Your task to perform on an android device: see tabs open on other devices in the chrome app Image 0: 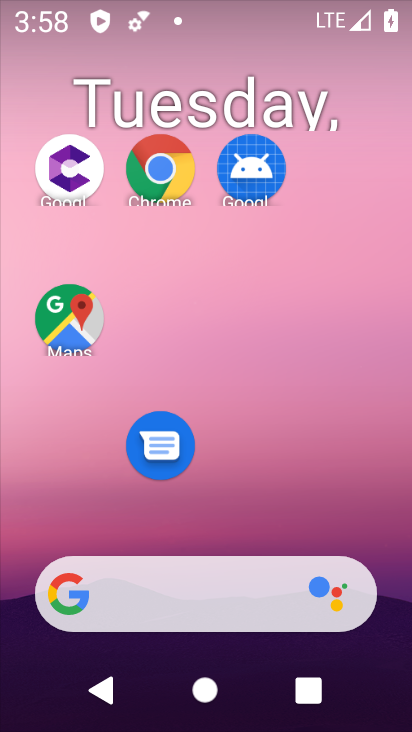
Step 0: click (160, 162)
Your task to perform on an android device: see tabs open on other devices in the chrome app Image 1: 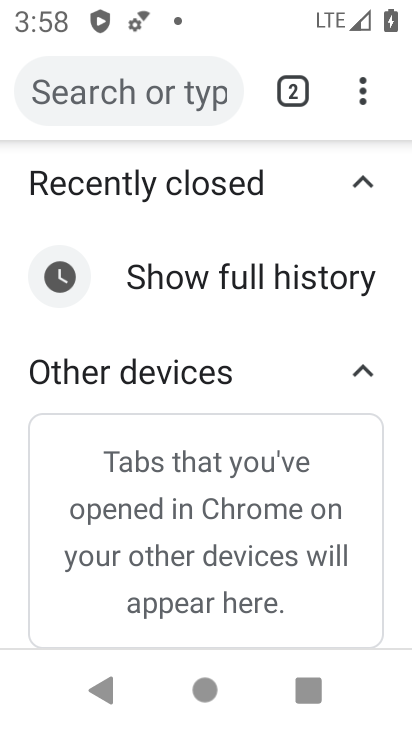
Step 1: click (360, 91)
Your task to perform on an android device: see tabs open on other devices in the chrome app Image 2: 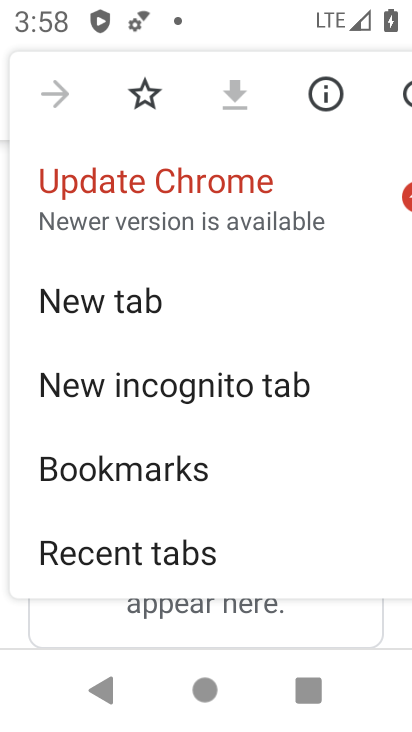
Step 2: click (124, 554)
Your task to perform on an android device: see tabs open on other devices in the chrome app Image 3: 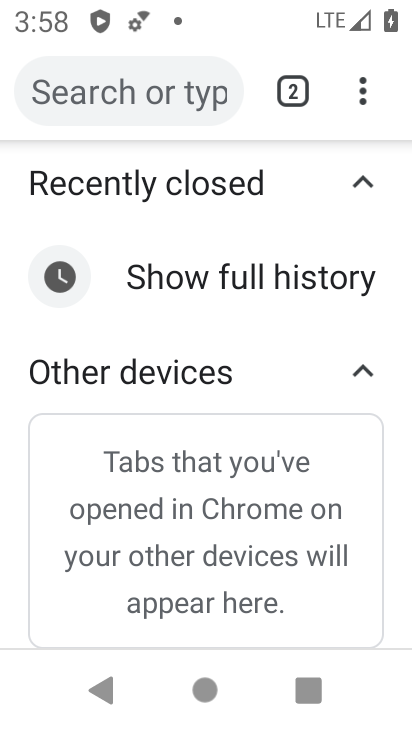
Step 3: task complete